Your task to perform on an android device: install app "Google News" Image 0: 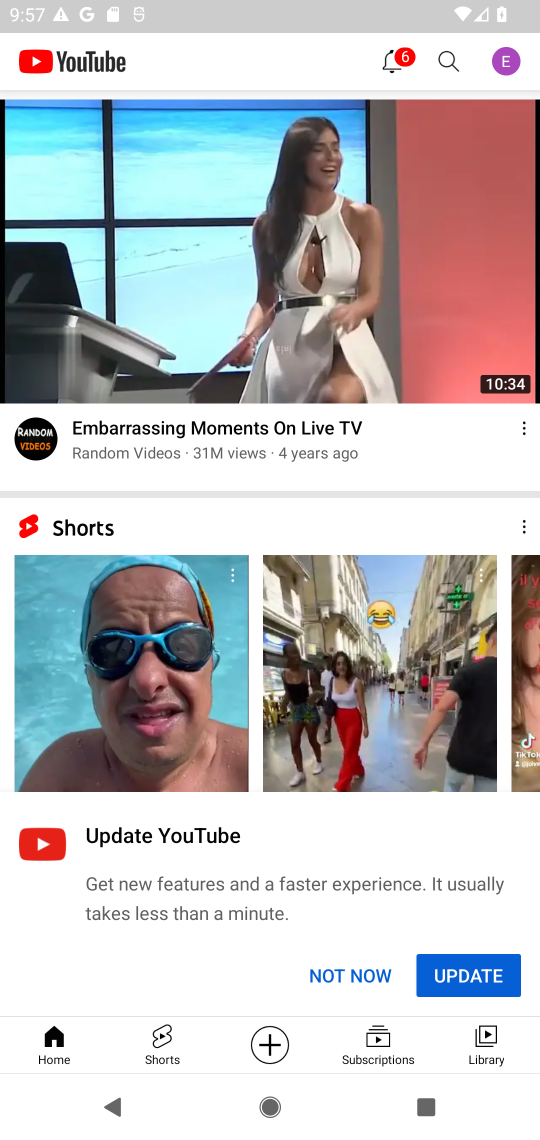
Step 0: press home button
Your task to perform on an android device: install app "Google News" Image 1: 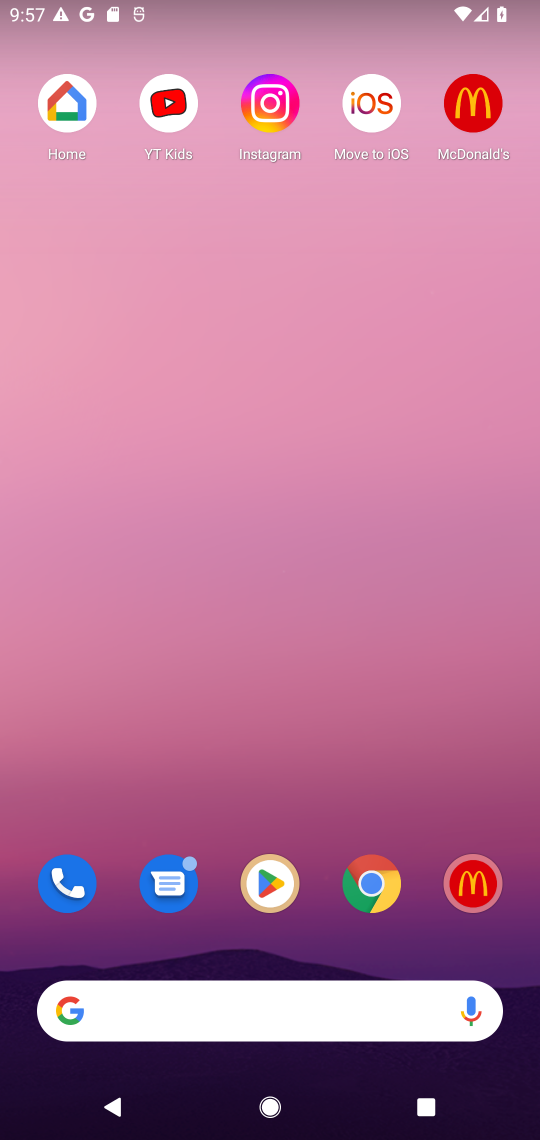
Step 1: drag from (419, 781) to (425, 45)
Your task to perform on an android device: install app "Google News" Image 2: 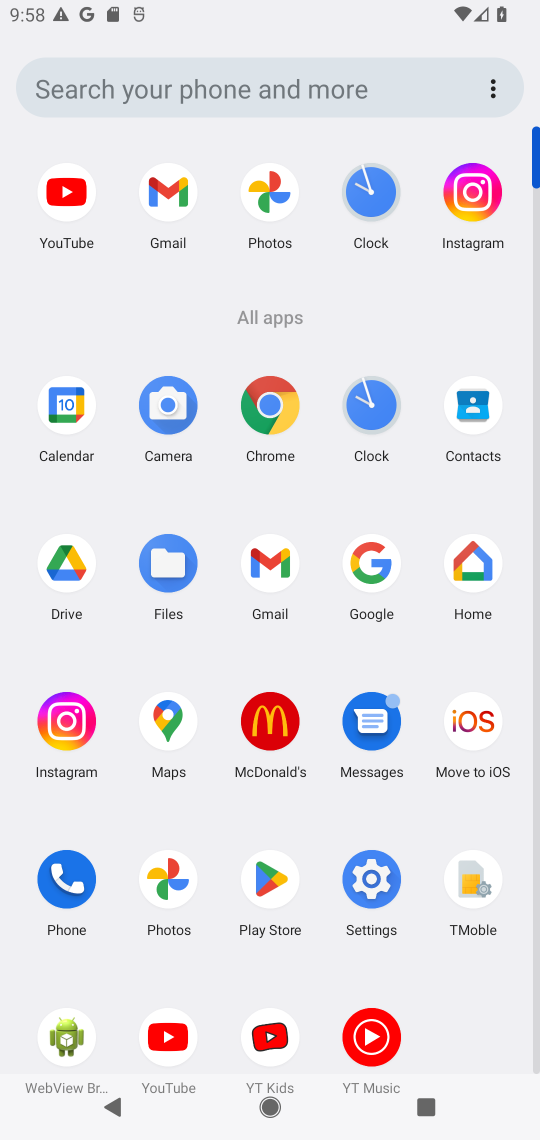
Step 2: click (262, 887)
Your task to perform on an android device: install app "Google News" Image 3: 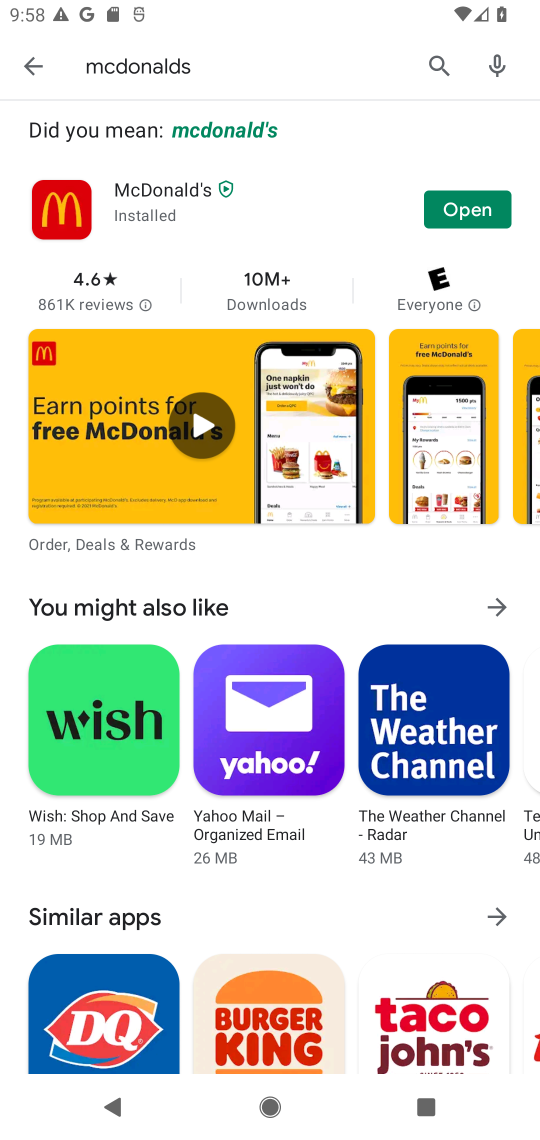
Step 3: click (435, 52)
Your task to perform on an android device: install app "Google News" Image 4: 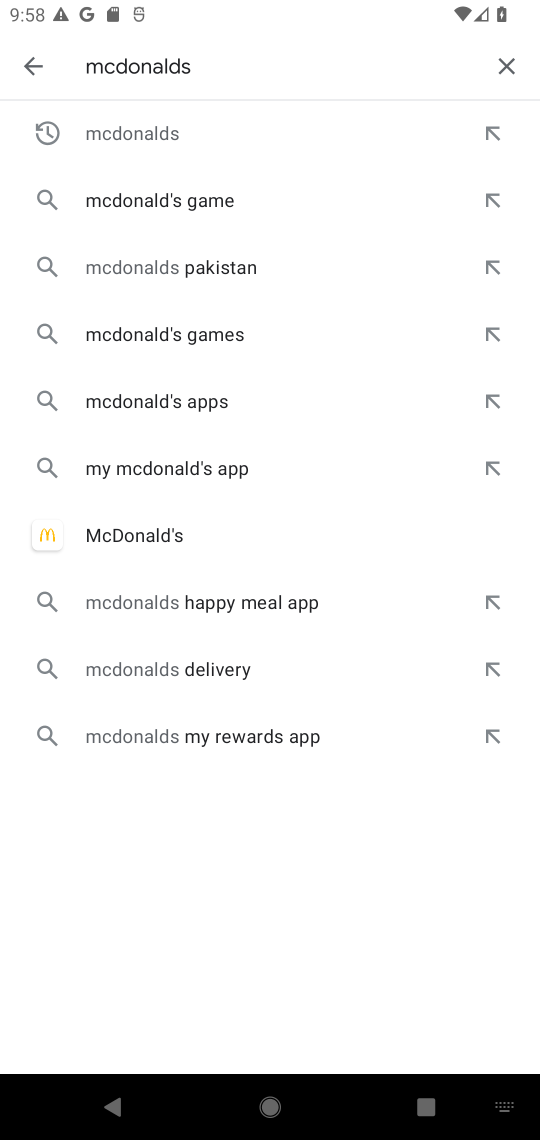
Step 4: click (507, 64)
Your task to perform on an android device: install app "Google News" Image 5: 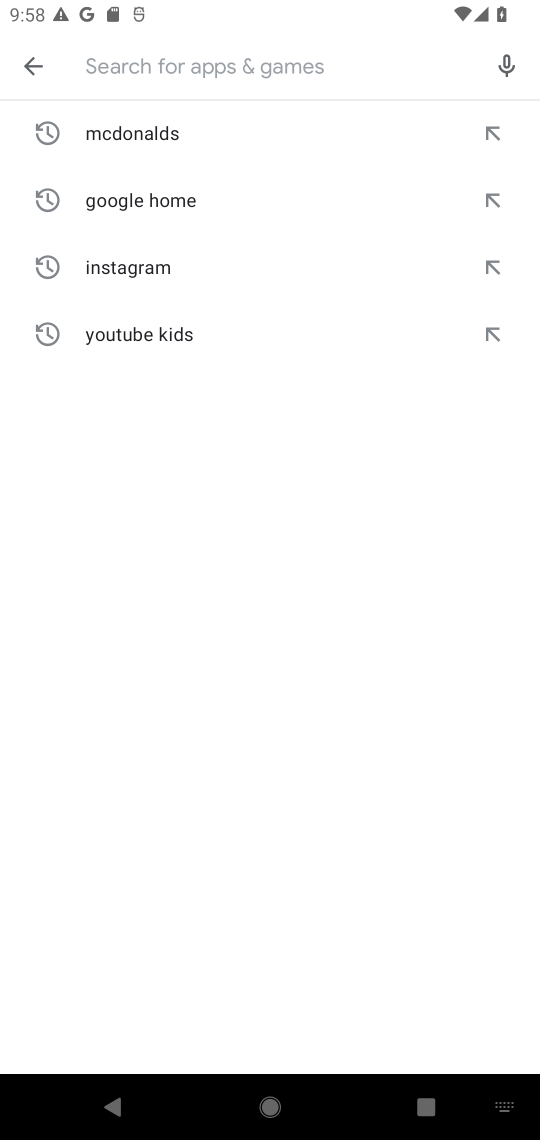
Step 5: press enter
Your task to perform on an android device: install app "Google News" Image 6: 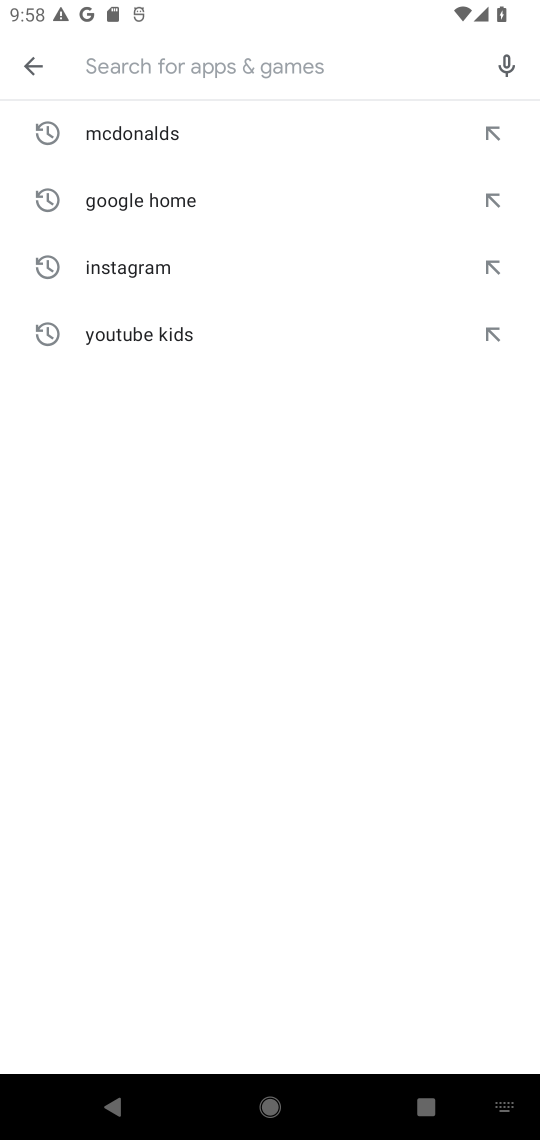
Step 6: type "google news"
Your task to perform on an android device: install app "Google News" Image 7: 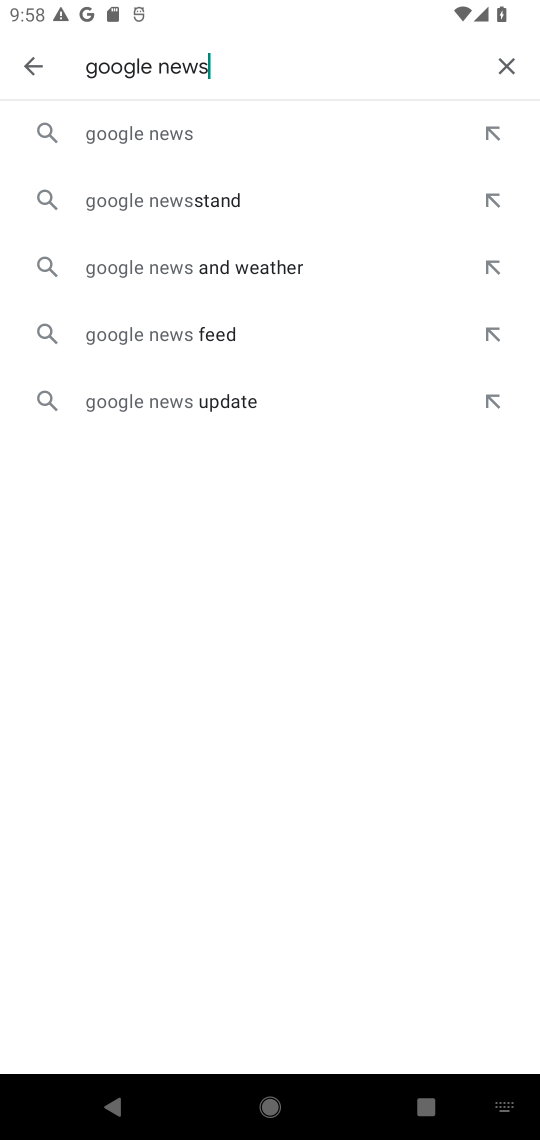
Step 7: click (224, 124)
Your task to perform on an android device: install app "Google News" Image 8: 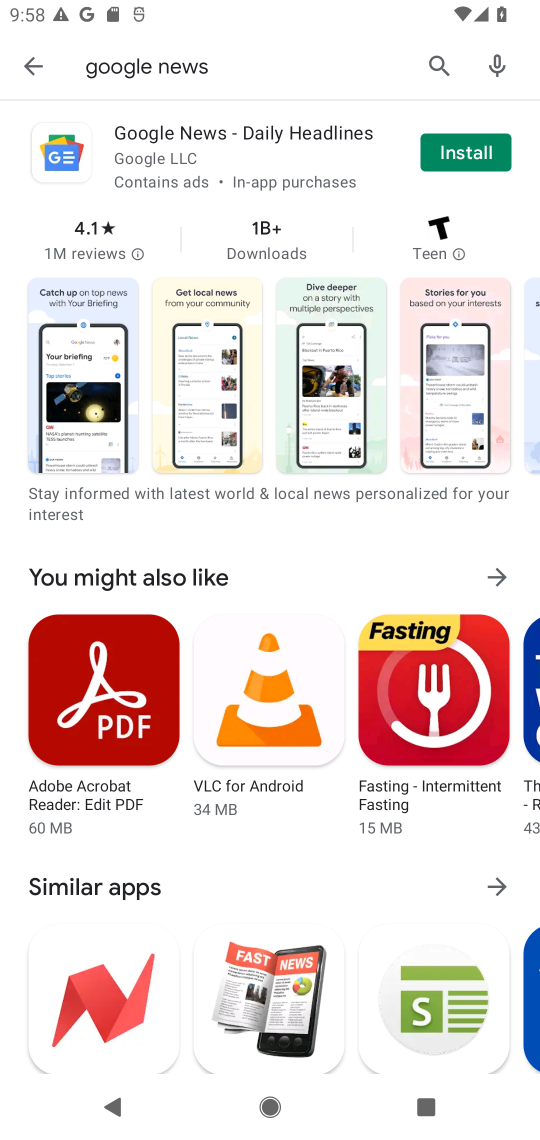
Step 8: click (476, 143)
Your task to perform on an android device: install app "Google News" Image 9: 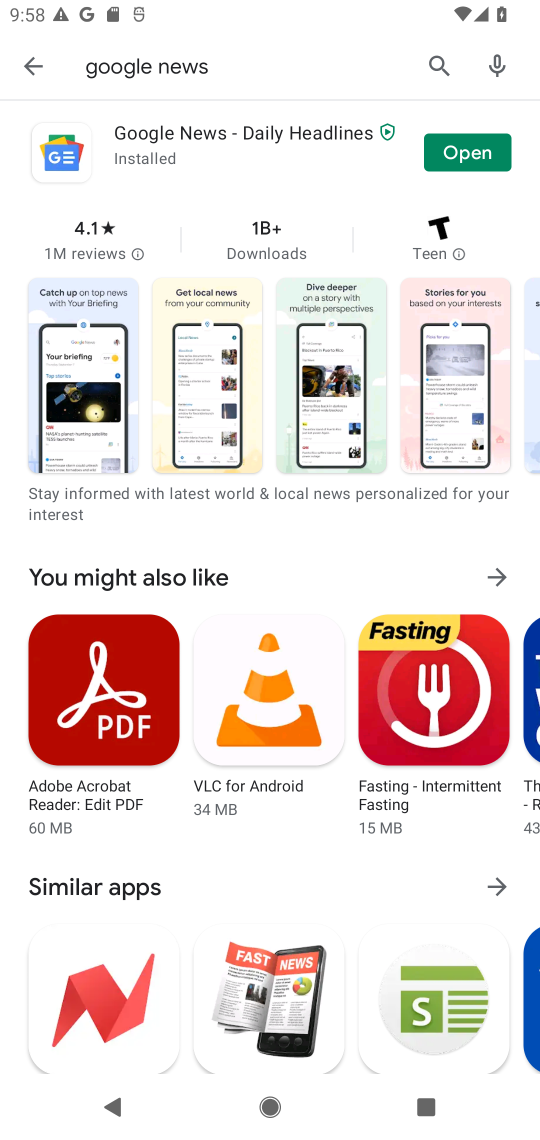
Step 9: task complete